Your task to perform on an android device: toggle wifi Image 0: 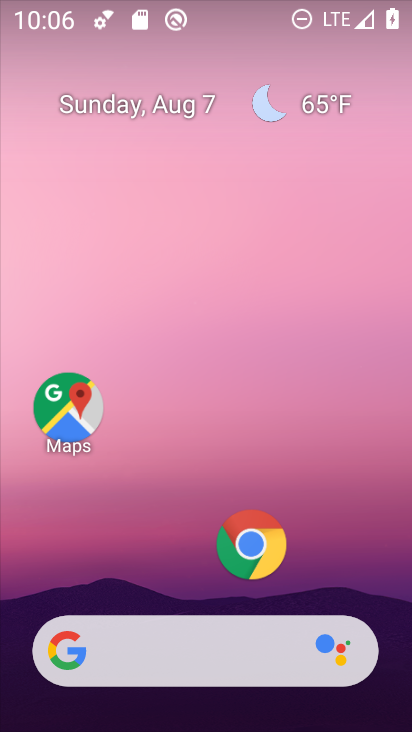
Step 0: drag from (215, 626) to (61, 191)
Your task to perform on an android device: toggle wifi Image 1: 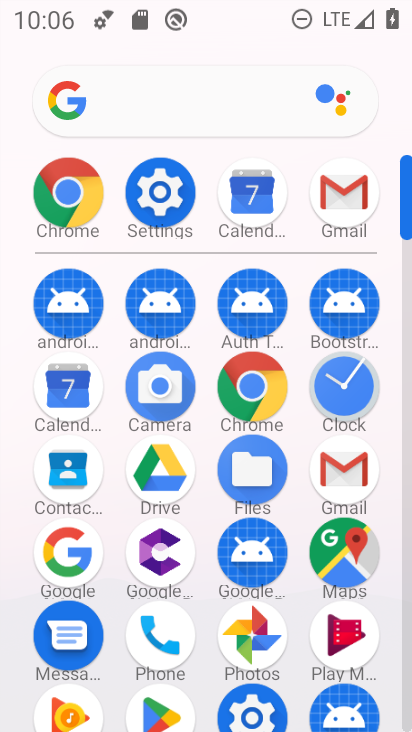
Step 1: click (148, 186)
Your task to perform on an android device: toggle wifi Image 2: 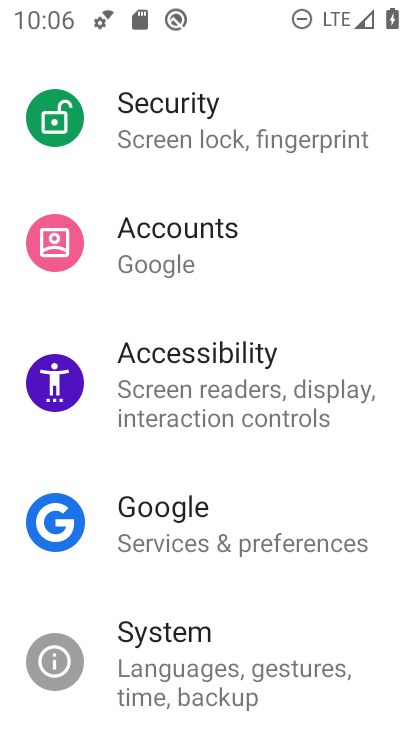
Step 2: drag from (211, 242) to (250, 478)
Your task to perform on an android device: toggle wifi Image 3: 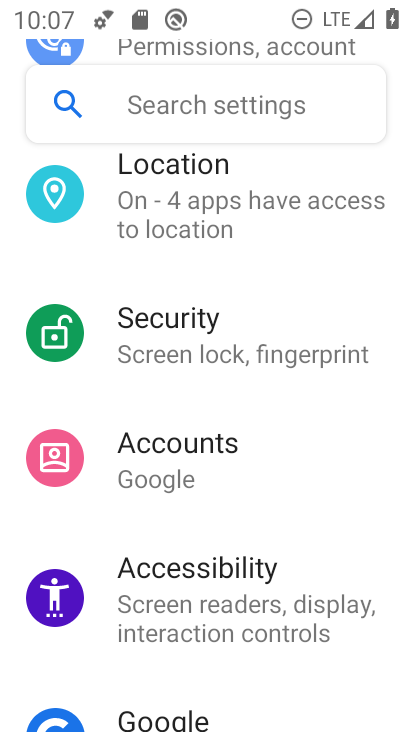
Step 3: drag from (250, 247) to (239, 731)
Your task to perform on an android device: toggle wifi Image 4: 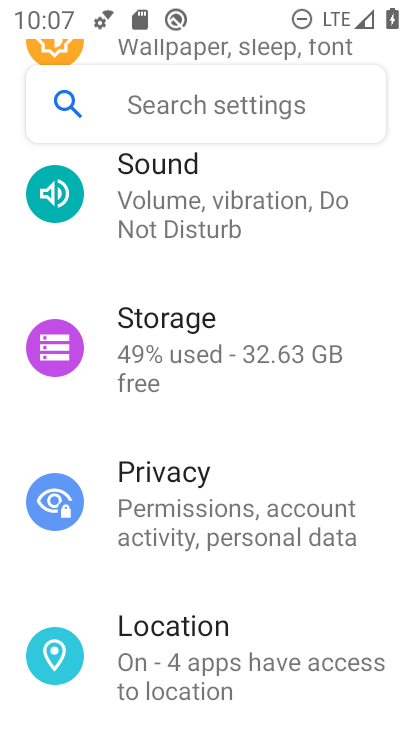
Step 4: drag from (186, 230) to (194, 603)
Your task to perform on an android device: toggle wifi Image 5: 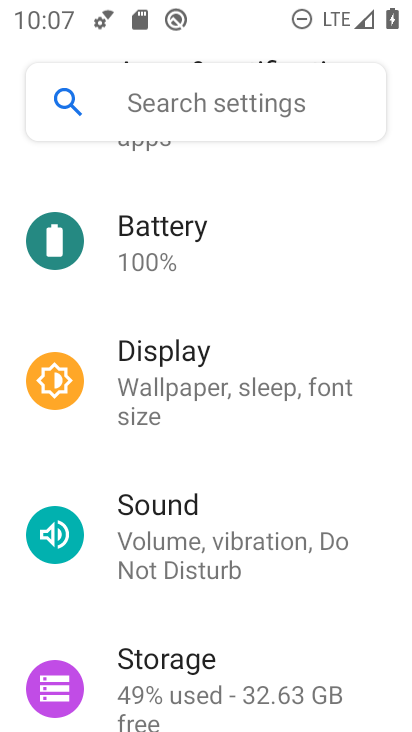
Step 5: drag from (164, 206) to (116, 705)
Your task to perform on an android device: toggle wifi Image 6: 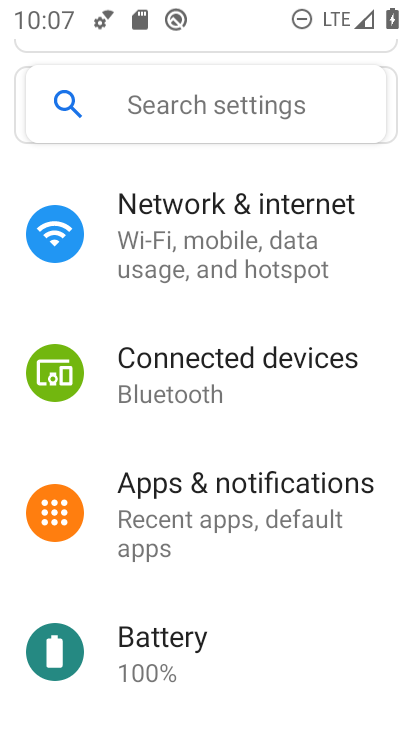
Step 6: click (147, 221)
Your task to perform on an android device: toggle wifi Image 7: 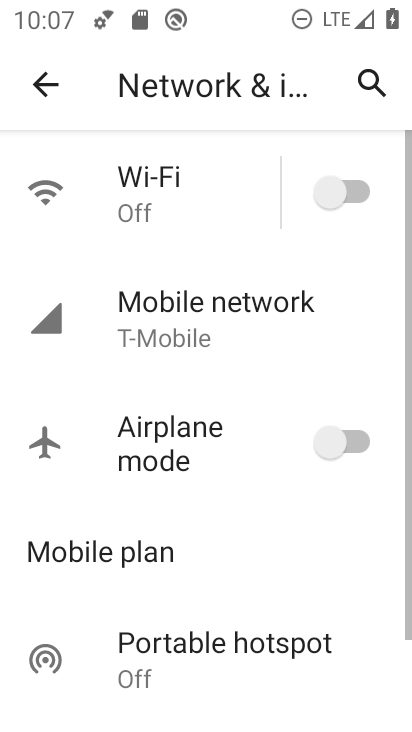
Step 7: click (166, 202)
Your task to perform on an android device: toggle wifi Image 8: 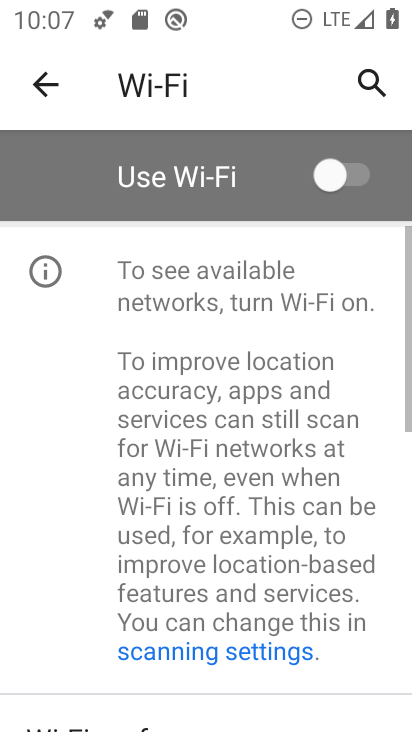
Step 8: click (350, 173)
Your task to perform on an android device: toggle wifi Image 9: 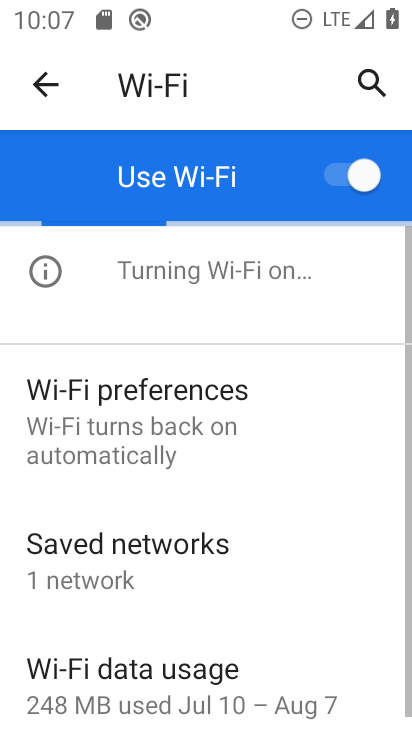
Step 9: task complete